Your task to perform on an android device: Go to Google maps Image 0: 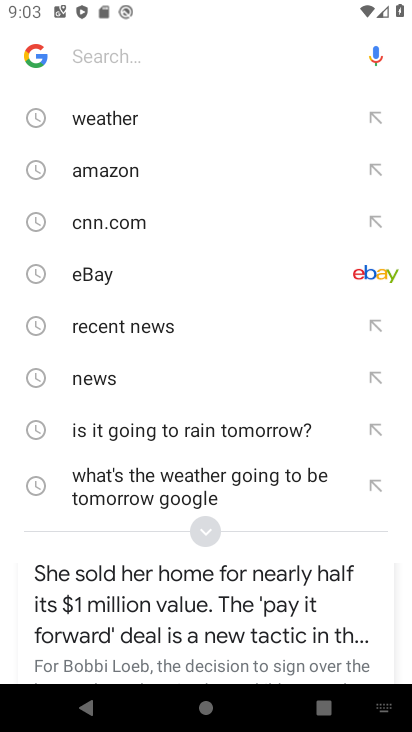
Step 0: press home button
Your task to perform on an android device: Go to Google maps Image 1: 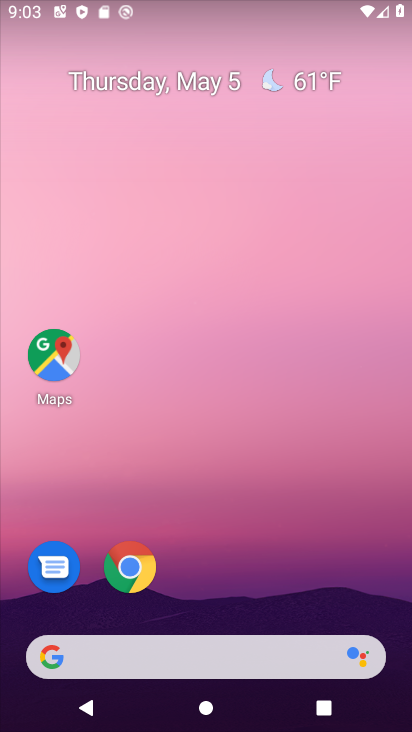
Step 1: click (49, 348)
Your task to perform on an android device: Go to Google maps Image 2: 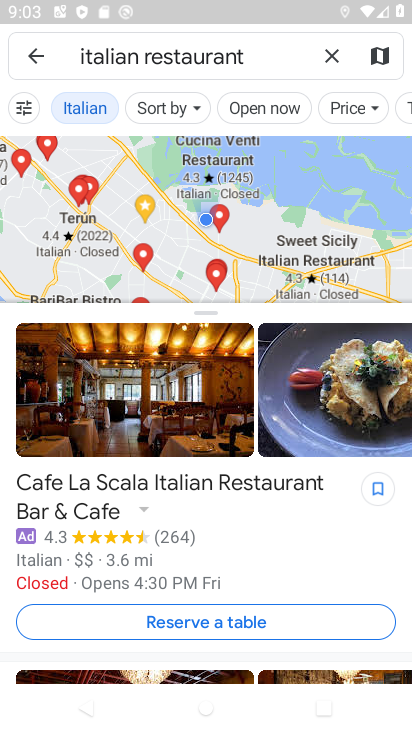
Step 2: task complete